Your task to perform on an android device: Go to privacy settings Image 0: 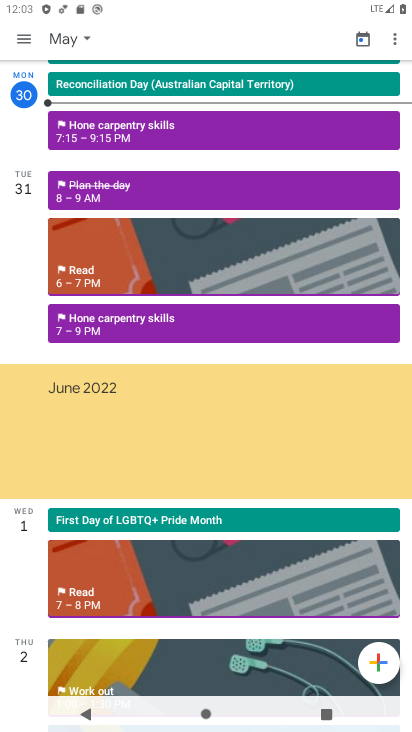
Step 0: press home button
Your task to perform on an android device: Go to privacy settings Image 1: 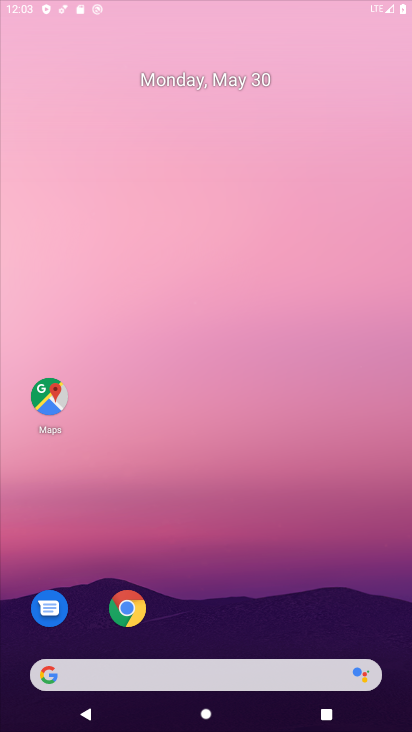
Step 1: drag from (245, 620) to (271, 27)
Your task to perform on an android device: Go to privacy settings Image 2: 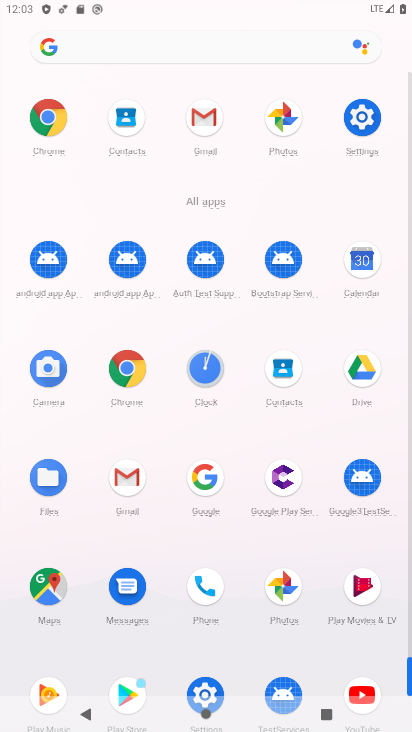
Step 2: click (368, 135)
Your task to perform on an android device: Go to privacy settings Image 3: 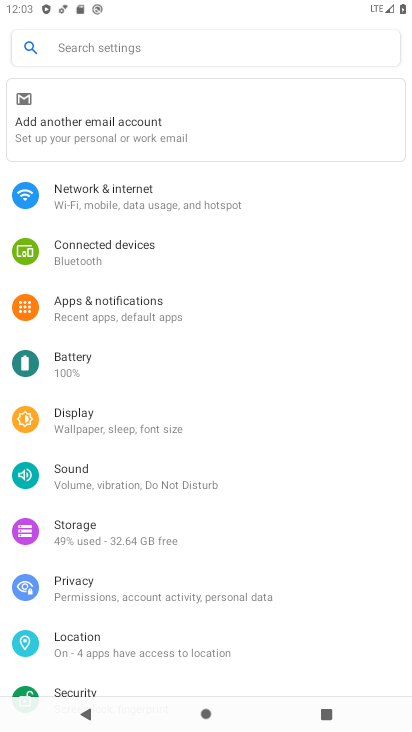
Step 3: click (136, 600)
Your task to perform on an android device: Go to privacy settings Image 4: 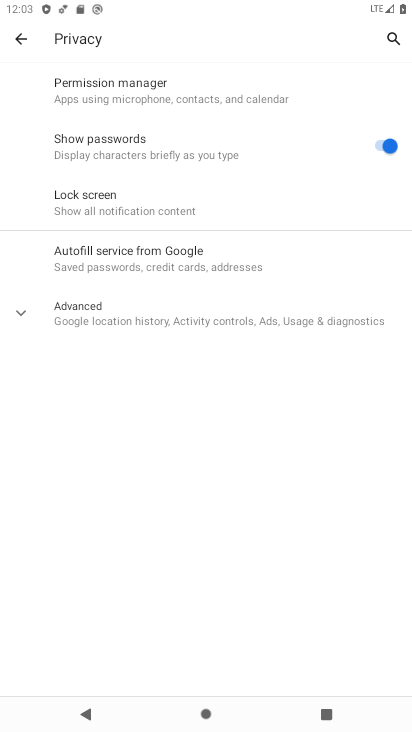
Step 4: task complete